Your task to perform on an android device: Open Maps and search for coffee Image 0: 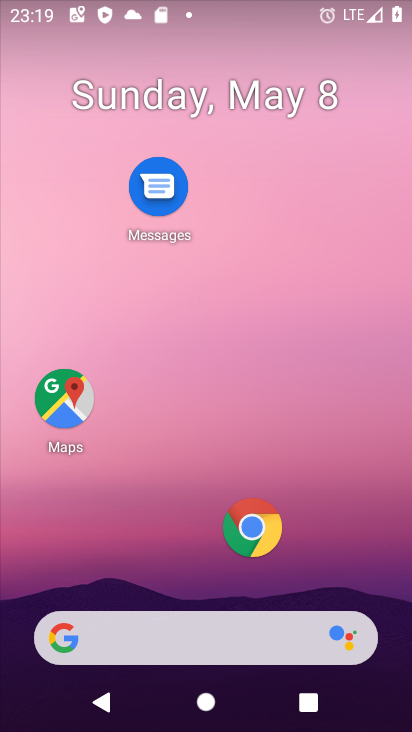
Step 0: click (65, 396)
Your task to perform on an android device: Open Maps and search for coffee Image 1: 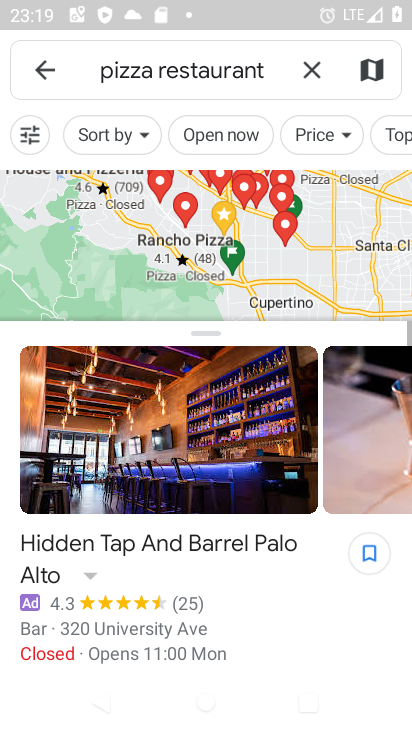
Step 1: click (313, 68)
Your task to perform on an android device: Open Maps and search for coffee Image 2: 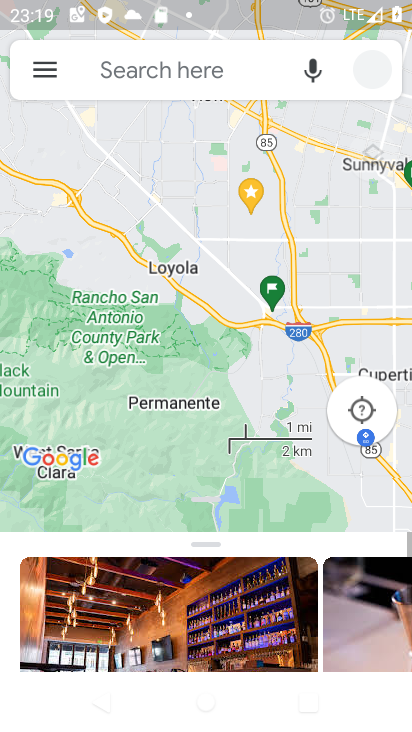
Step 2: click (157, 73)
Your task to perform on an android device: Open Maps and search for coffee Image 3: 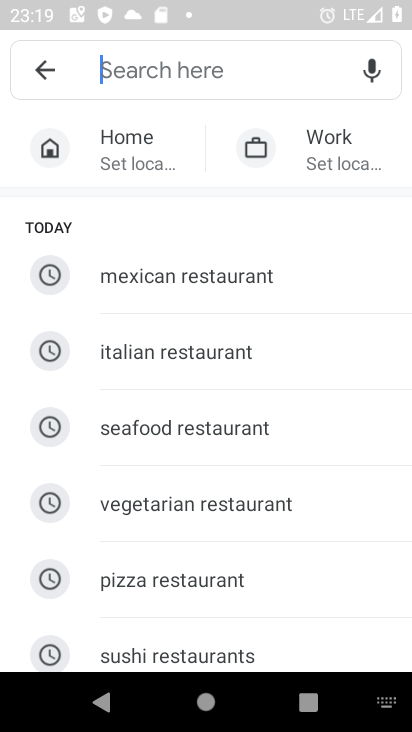
Step 3: type "search for coffee"
Your task to perform on an android device: Open Maps and search for coffee Image 4: 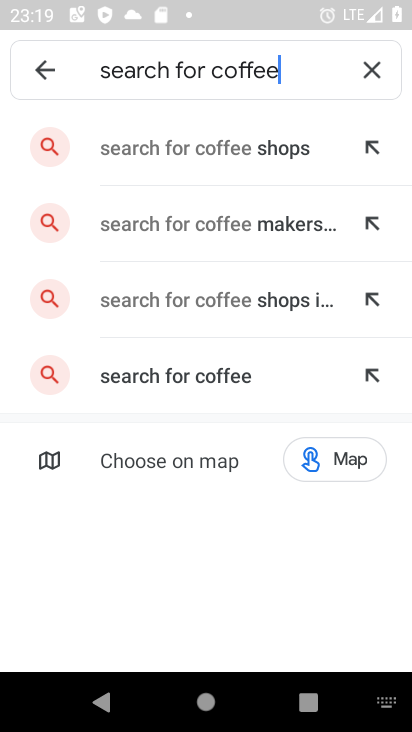
Step 4: click (191, 156)
Your task to perform on an android device: Open Maps and search for coffee Image 5: 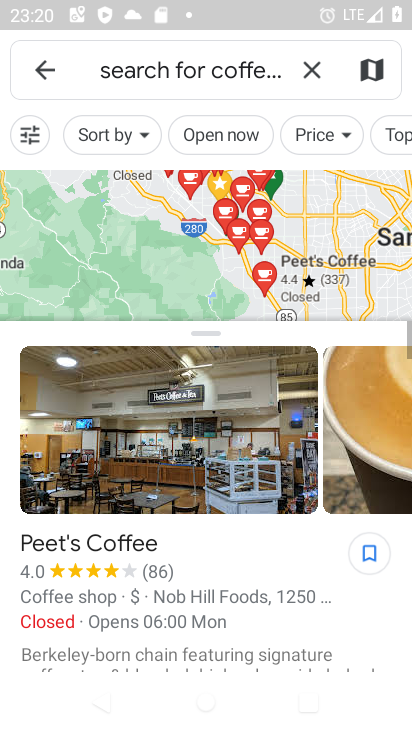
Step 5: task complete